Your task to perform on an android device: toggle sleep mode Image 0: 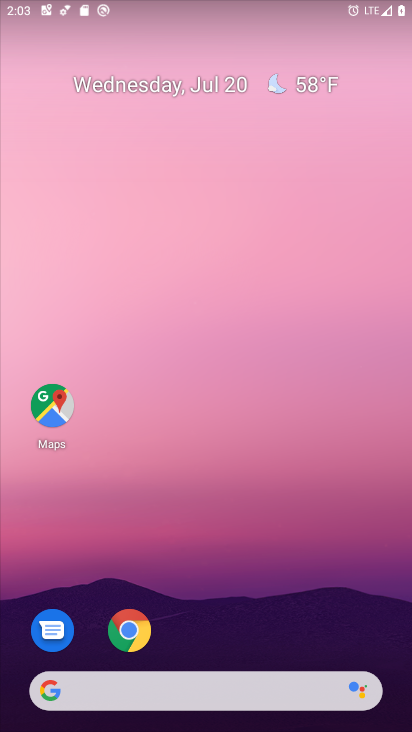
Step 0: press home button
Your task to perform on an android device: toggle sleep mode Image 1: 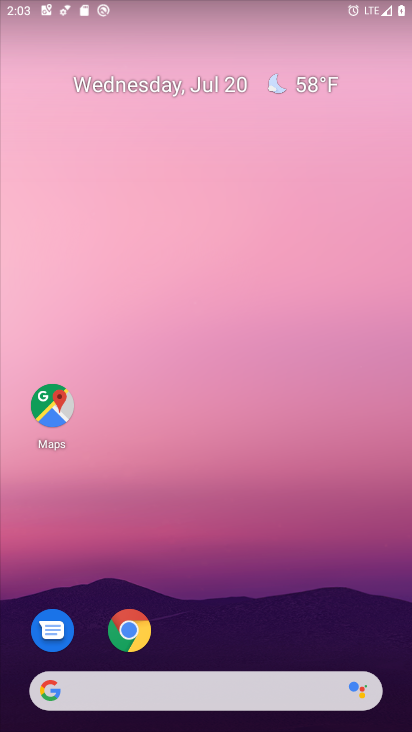
Step 1: drag from (267, 367) to (308, 131)
Your task to perform on an android device: toggle sleep mode Image 2: 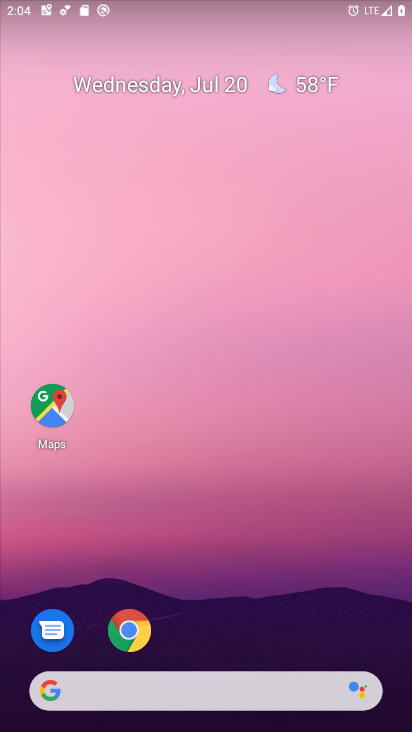
Step 2: drag from (199, 602) to (286, 52)
Your task to perform on an android device: toggle sleep mode Image 3: 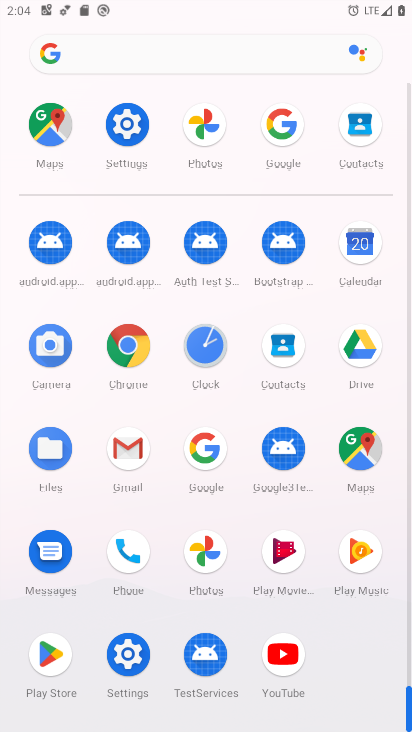
Step 3: drag from (186, 524) to (236, 225)
Your task to perform on an android device: toggle sleep mode Image 4: 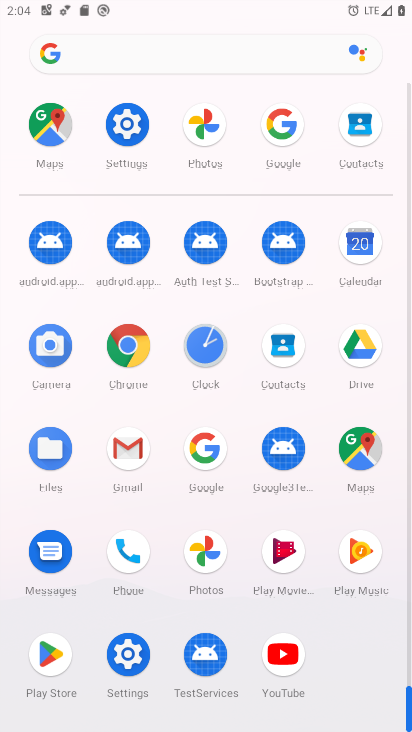
Step 4: click (114, 130)
Your task to perform on an android device: toggle sleep mode Image 5: 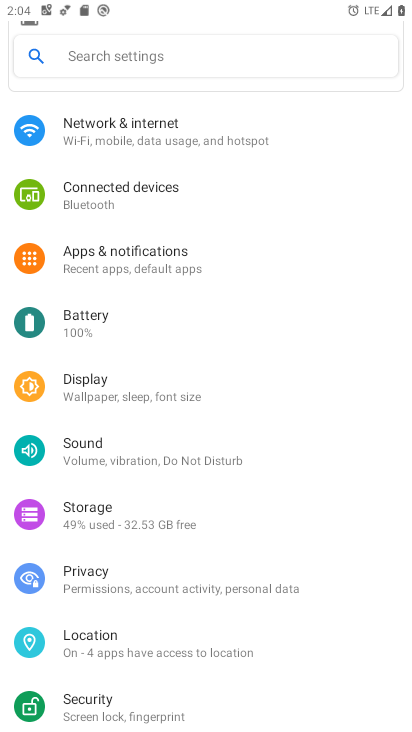
Step 5: click (105, 392)
Your task to perform on an android device: toggle sleep mode Image 6: 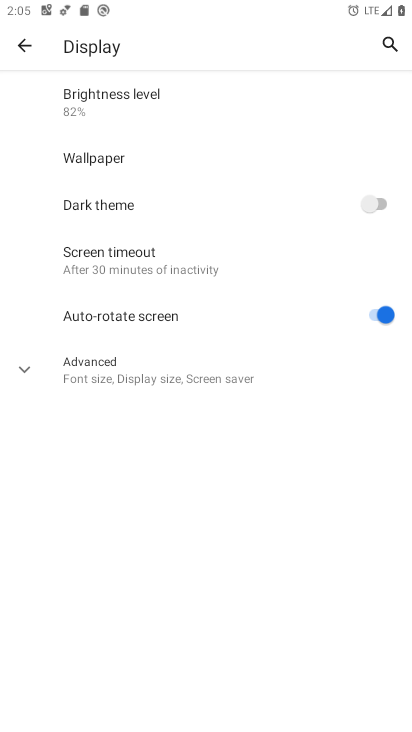
Step 6: task complete